Your task to perform on an android device: see tabs open on other devices in the chrome app Image 0: 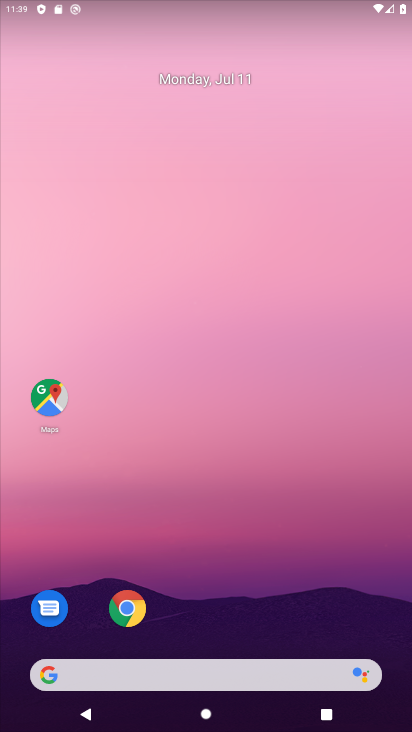
Step 0: drag from (236, 646) to (266, 101)
Your task to perform on an android device: see tabs open on other devices in the chrome app Image 1: 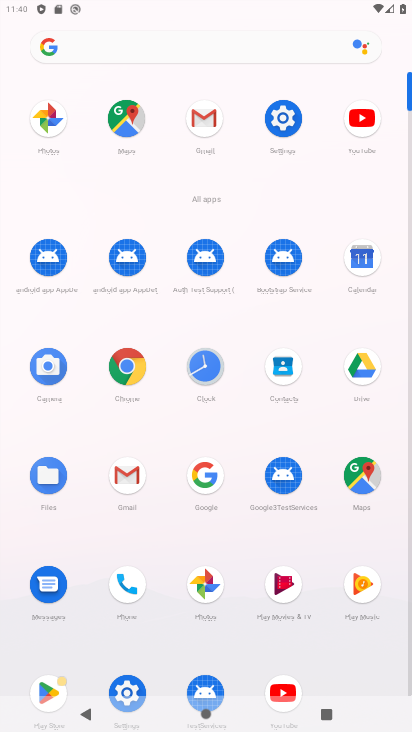
Step 1: click (131, 377)
Your task to perform on an android device: see tabs open on other devices in the chrome app Image 2: 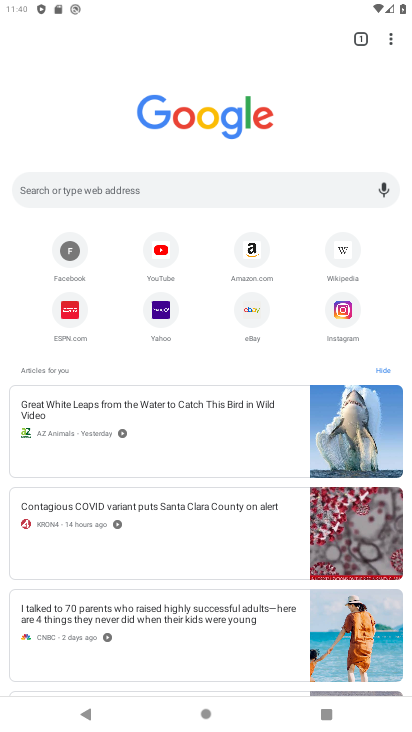
Step 2: task complete